Your task to perform on an android device: turn off sleep mode Image 0: 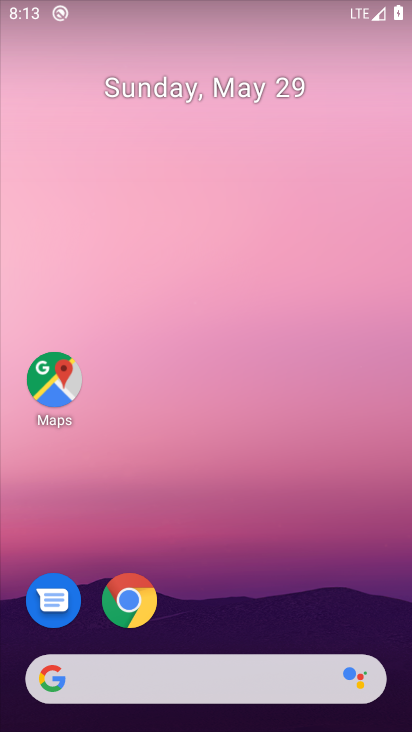
Step 0: drag from (212, 534) to (209, 130)
Your task to perform on an android device: turn off sleep mode Image 1: 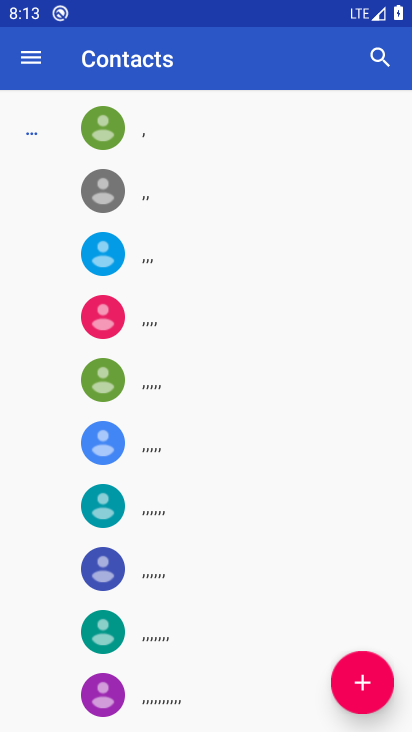
Step 1: press home button
Your task to perform on an android device: turn off sleep mode Image 2: 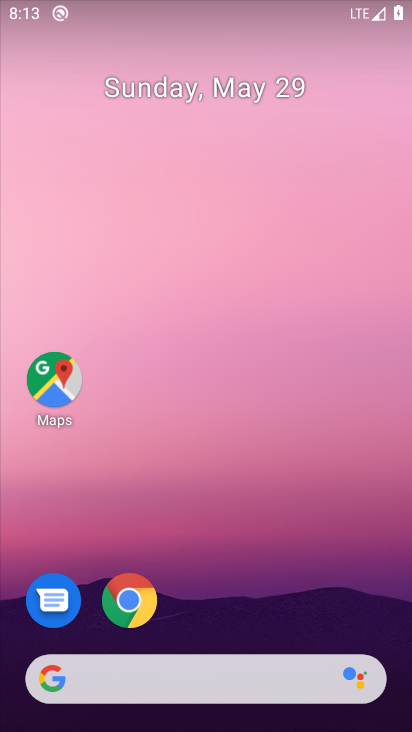
Step 2: drag from (211, 620) to (258, 43)
Your task to perform on an android device: turn off sleep mode Image 3: 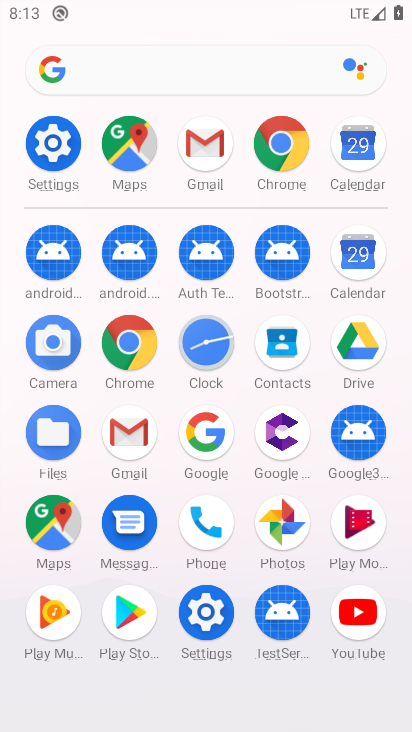
Step 3: click (54, 138)
Your task to perform on an android device: turn off sleep mode Image 4: 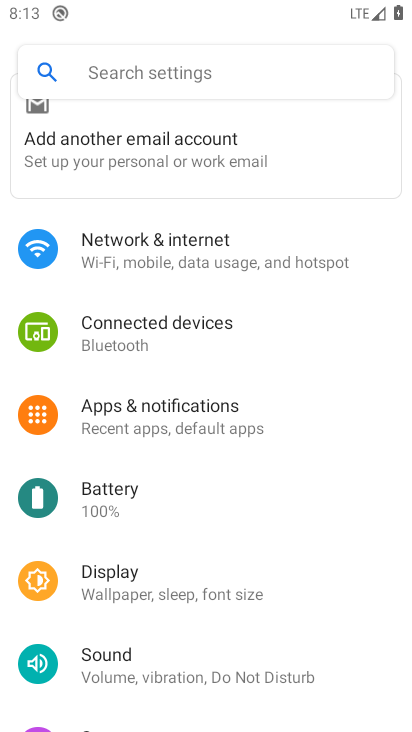
Step 4: click (228, 79)
Your task to perform on an android device: turn off sleep mode Image 5: 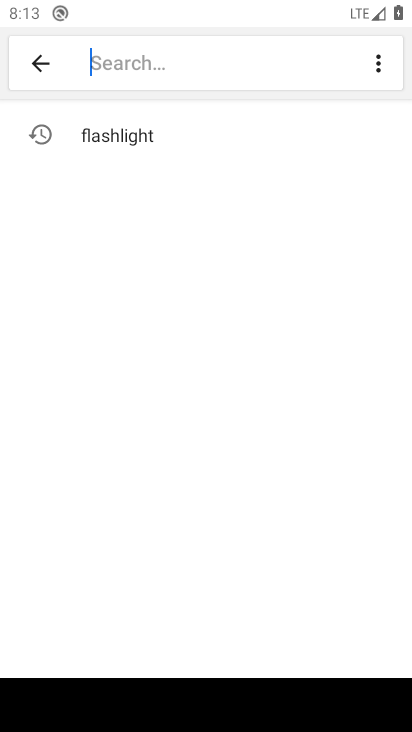
Step 5: type "sleep mode"
Your task to perform on an android device: turn off sleep mode Image 6: 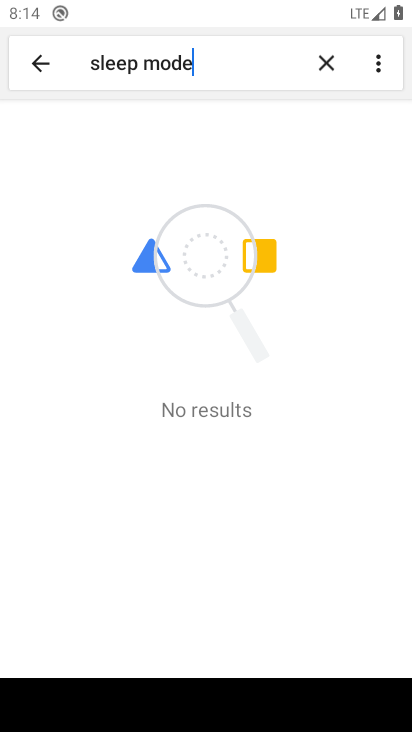
Step 6: click (252, 349)
Your task to perform on an android device: turn off sleep mode Image 7: 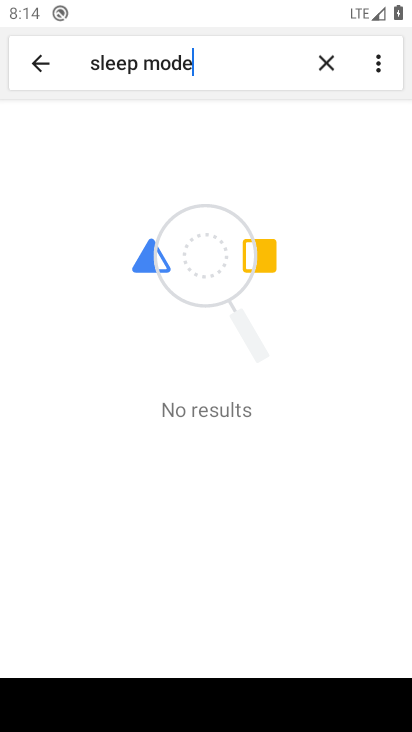
Step 7: task complete